Your task to perform on an android device: Toggle the flashlight Image 0: 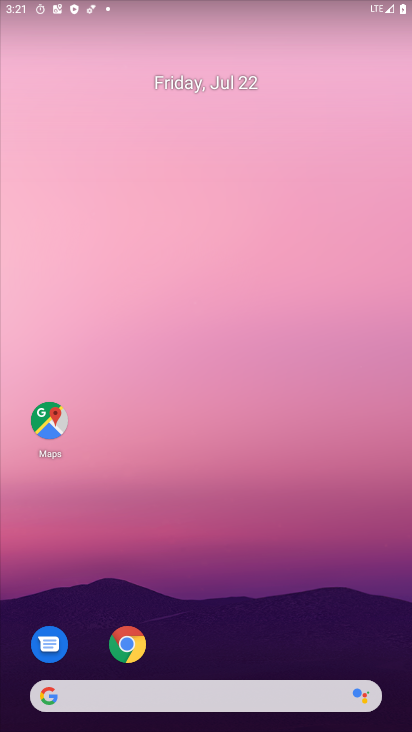
Step 0: press home button
Your task to perform on an android device: Toggle the flashlight Image 1: 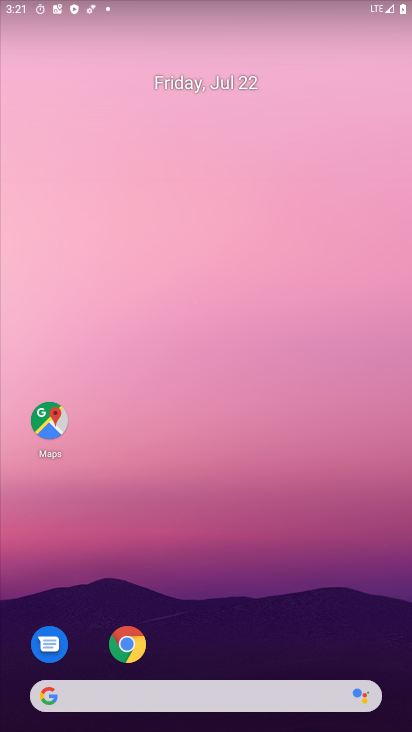
Step 1: task complete